Your task to perform on an android device: clear history in the chrome app Image 0: 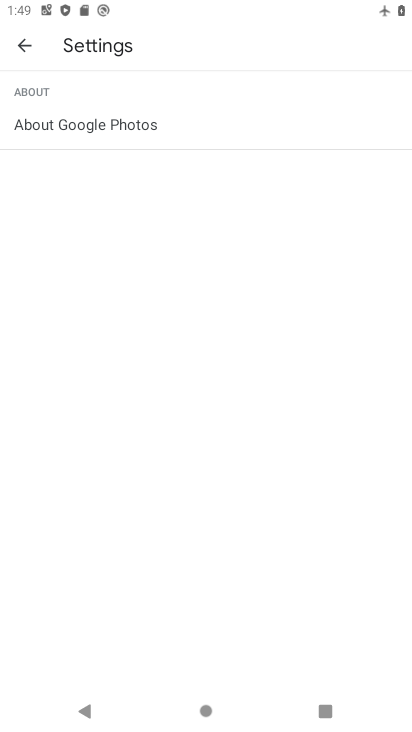
Step 0: press home button
Your task to perform on an android device: clear history in the chrome app Image 1: 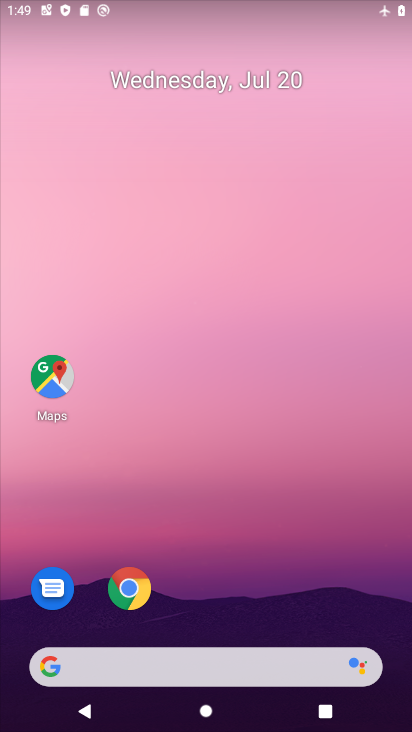
Step 1: drag from (278, 627) to (339, 1)
Your task to perform on an android device: clear history in the chrome app Image 2: 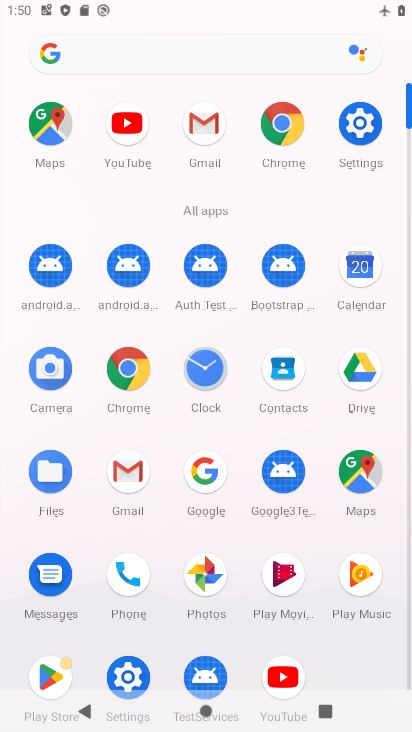
Step 2: click (280, 128)
Your task to perform on an android device: clear history in the chrome app Image 3: 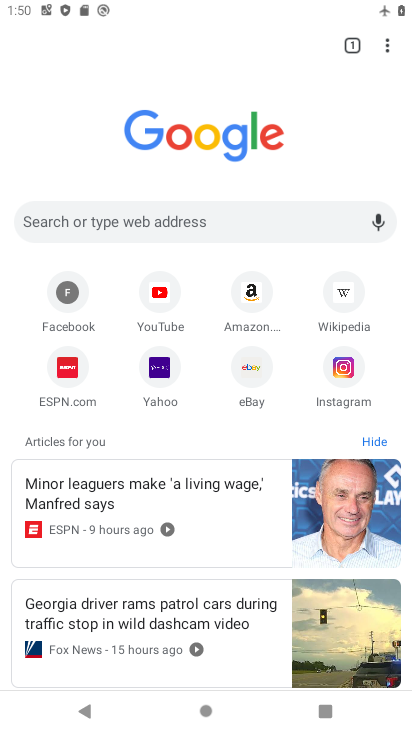
Step 3: drag from (388, 36) to (234, 265)
Your task to perform on an android device: clear history in the chrome app Image 4: 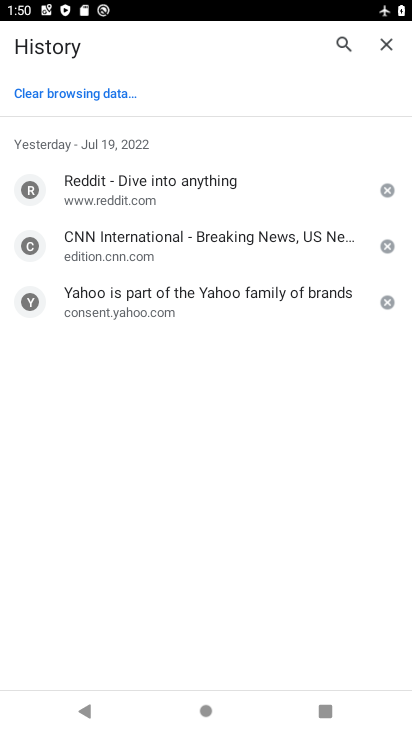
Step 4: click (70, 80)
Your task to perform on an android device: clear history in the chrome app Image 5: 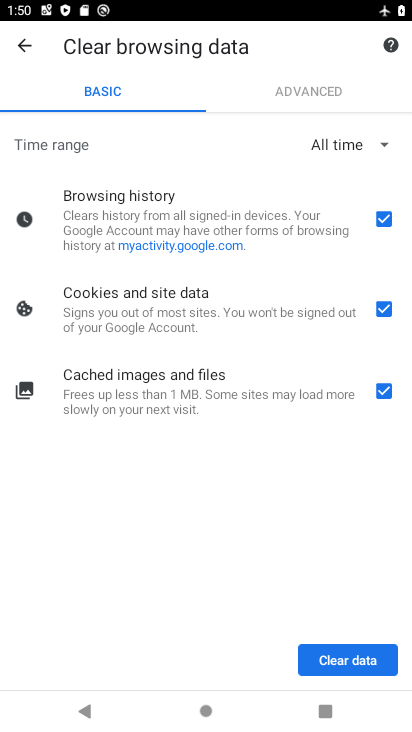
Step 5: click (380, 311)
Your task to perform on an android device: clear history in the chrome app Image 6: 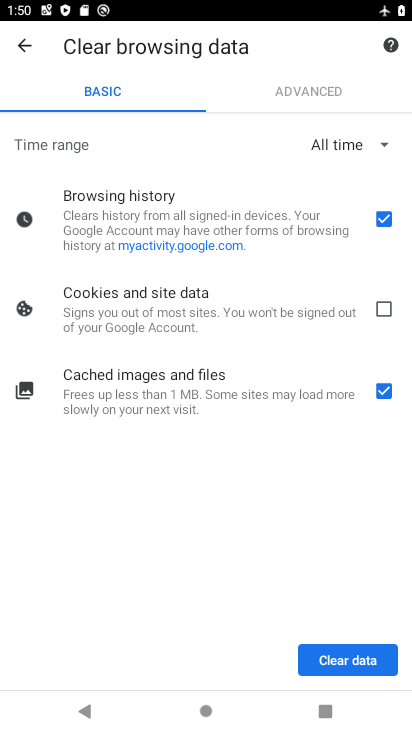
Step 6: click (380, 388)
Your task to perform on an android device: clear history in the chrome app Image 7: 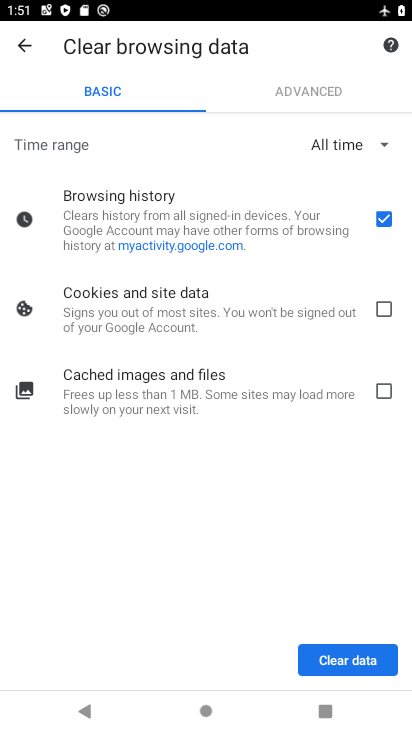
Step 7: click (325, 666)
Your task to perform on an android device: clear history in the chrome app Image 8: 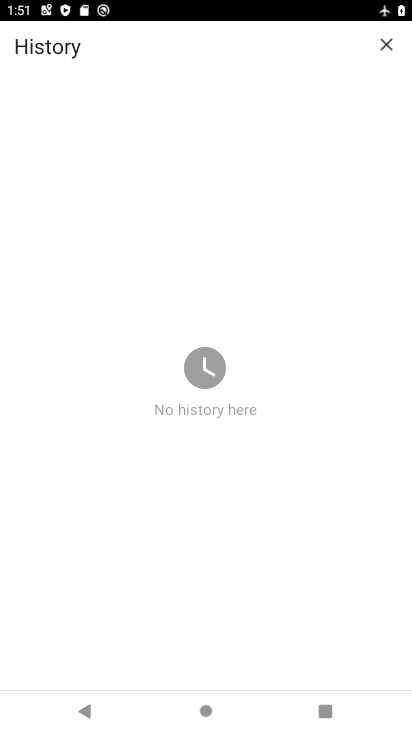
Step 8: task complete